Your task to perform on an android device: change the clock style Image 0: 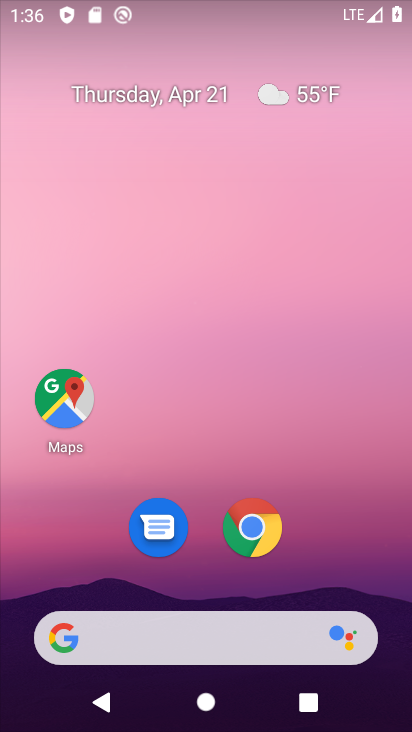
Step 0: drag from (336, 575) to (355, 98)
Your task to perform on an android device: change the clock style Image 1: 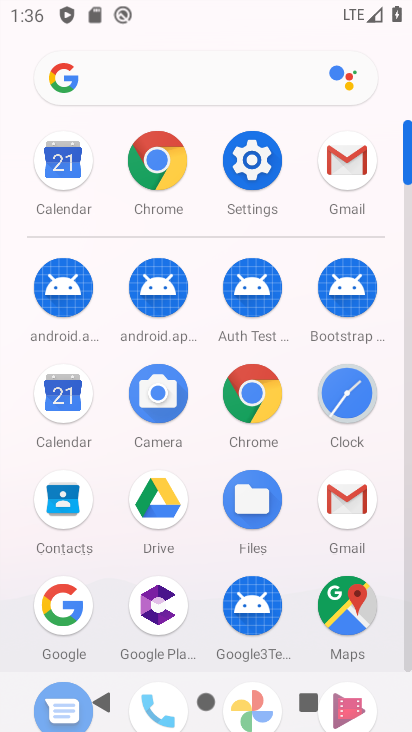
Step 1: click (343, 392)
Your task to perform on an android device: change the clock style Image 2: 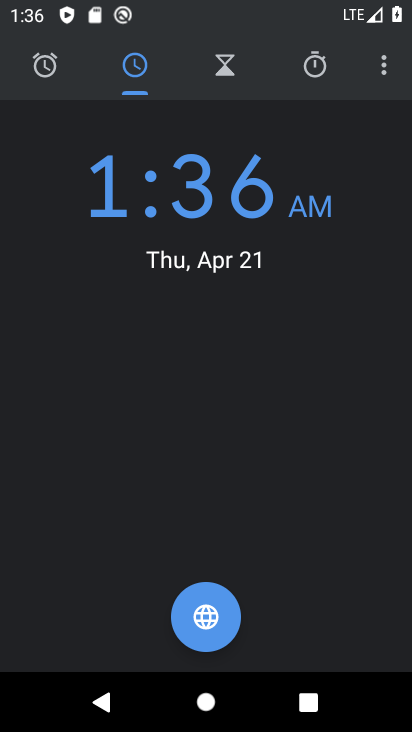
Step 2: click (387, 73)
Your task to perform on an android device: change the clock style Image 3: 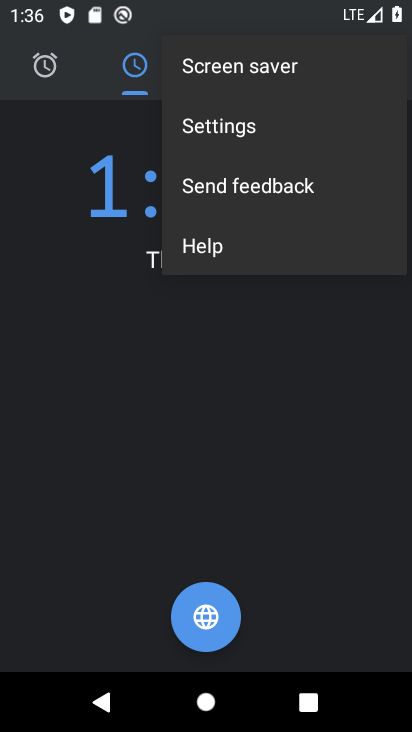
Step 3: click (280, 131)
Your task to perform on an android device: change the clock style Image 4: 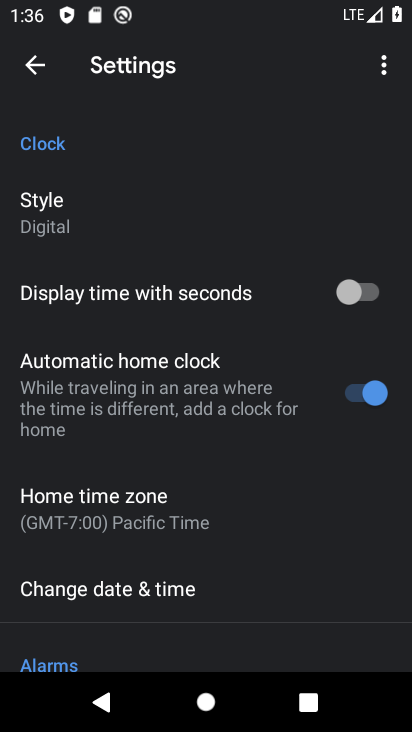
Step 4: drag from (297, 542) to (308, 378)
Your task to perform on an android device: change the clock style Image 5: 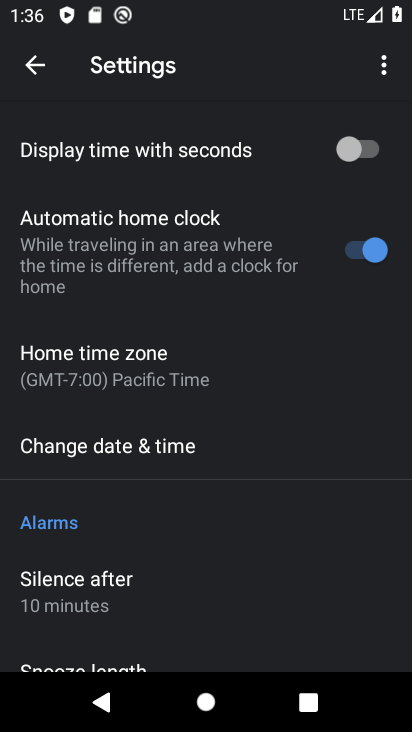
Step 5: drag from (306, 525) to (321, 333)
Your task to perform on an android device: change the clock style Image 6: 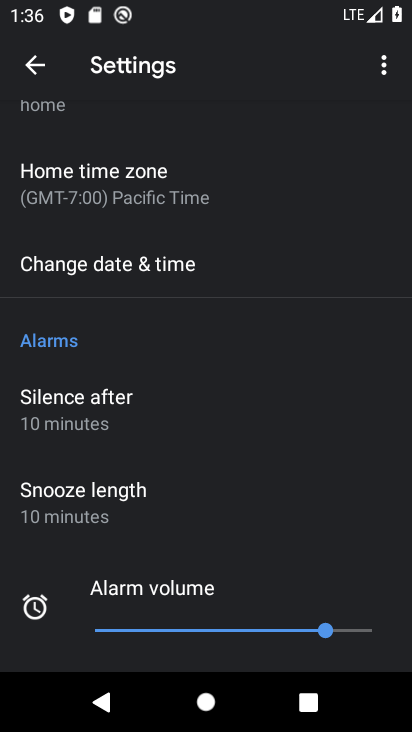
Step 6: drag from (307, 541) to (320, 324)
Your task to perform on an android device: change the clock style Image 7: 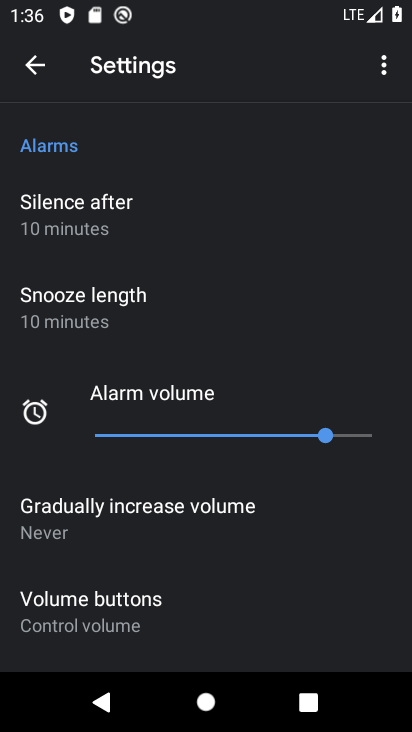
Step 7: drag from (316, 589) to (337, 378)
Your task to perform on an android device: change the clock style Image 8: 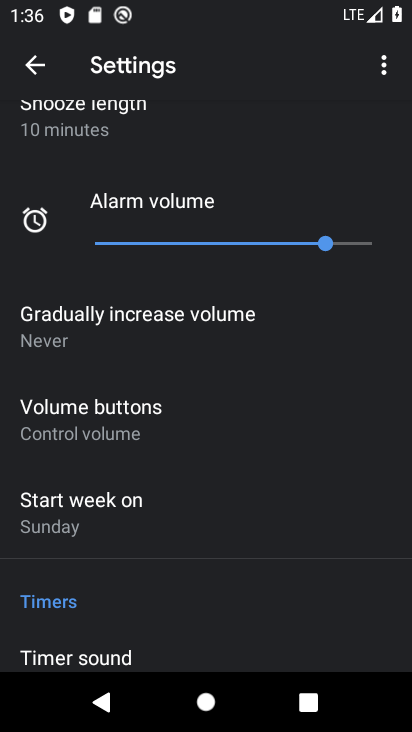
Step 8: drag from (325, 593) to (344, 405)
Your task to perform on an android device: change the clock style Image 9: 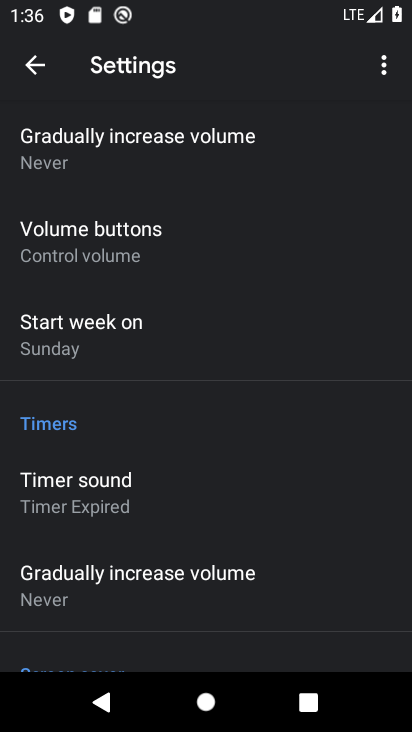
Step 9: drag from (326, 606) to (349, 283)
Your task to perform on an android device: change the clock style Image 10: 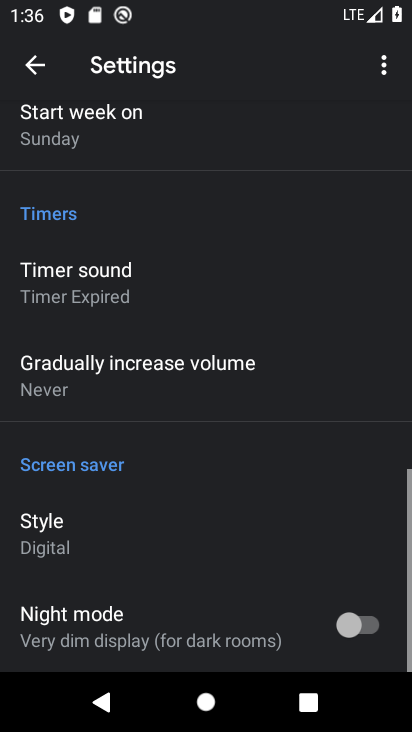
Step 10: drag from (345, 250) to (336, 497)
Your task to perform on an android device: change the clock style Image 11: 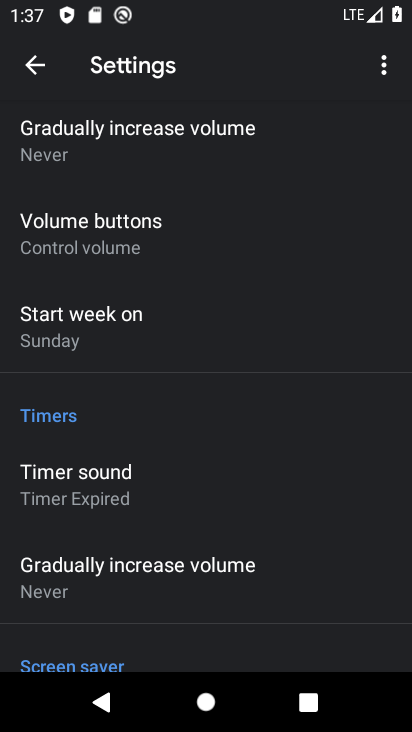
Step 11: drag from (332, 231) to (335, 434)
Your task to perform on an android device: change the clock style Image 12: 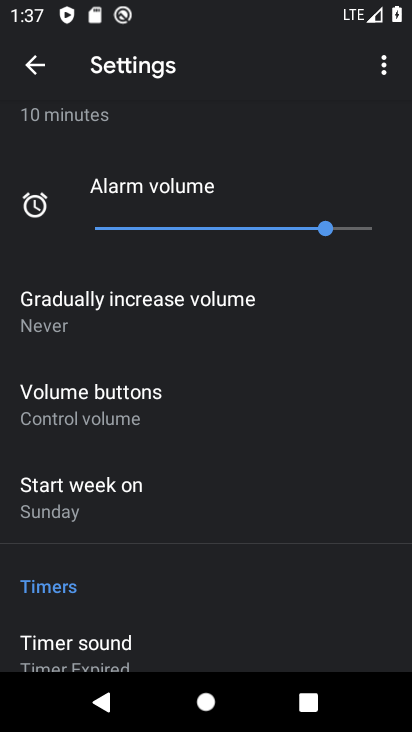
Step 12: drag from (378, 181) to (372, 407)
Your task to perform on an android device: change the clock style Image 13: 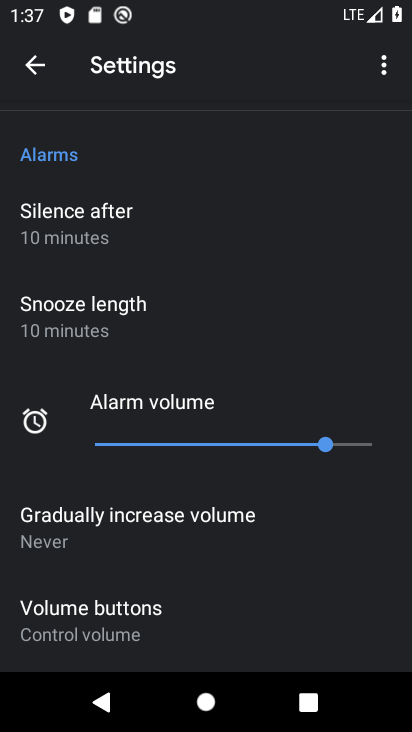
Step 13: drag from (365, 252) to (359, 395)
Your task to perform on an android device: change the clock style Image 14: 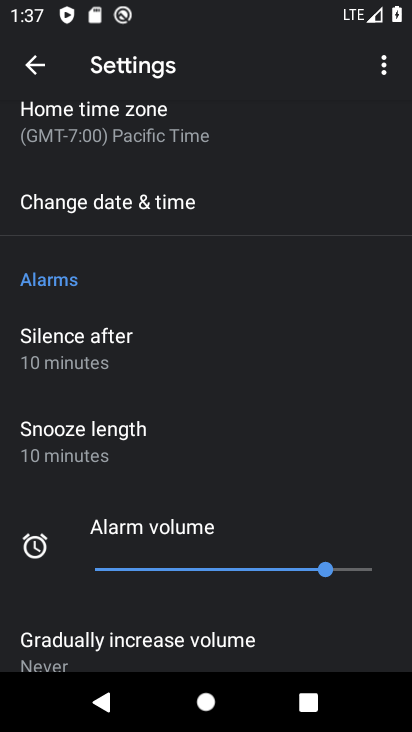
Step 14: drag from (352, 189) to (360, 403)
Your task to perform on an android device: change the clock style Image 15: 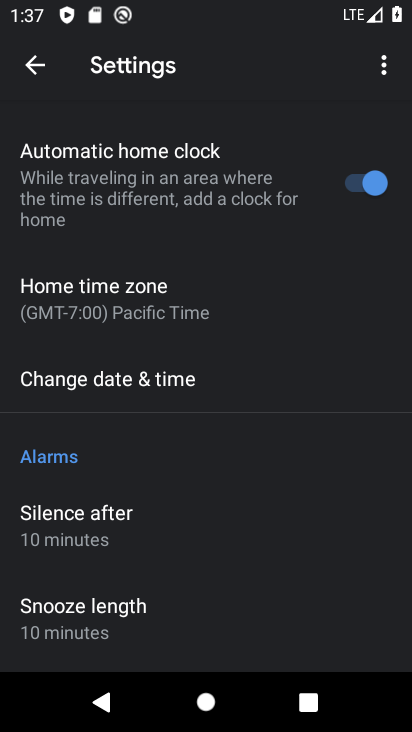
Step 15: drag from (306, 153) to (278, 416)
Your task to perform on an android device: change the clock style Image 16: 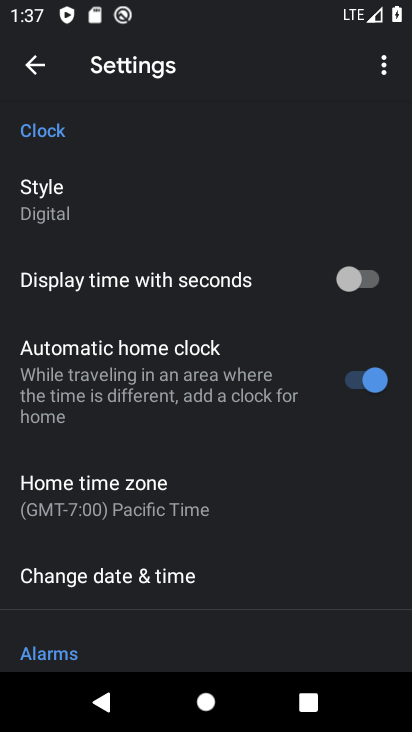
Step 16: click (41, 204)
Your task to perform on an android device: change the clock style Image 17: 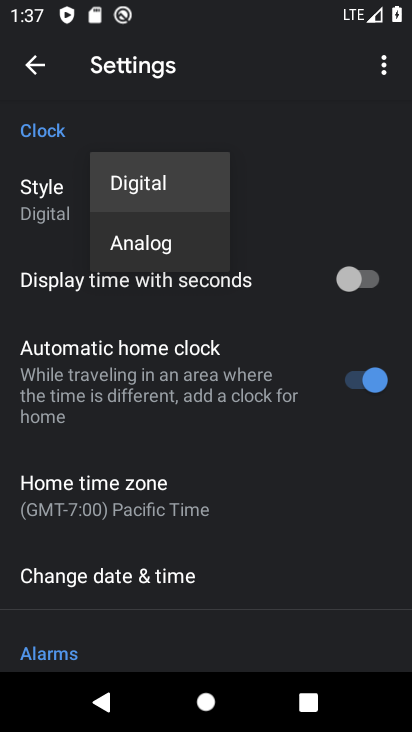
Step 17: click (163, 244)
Your task to perform on an android device: change the clock style Image 18: 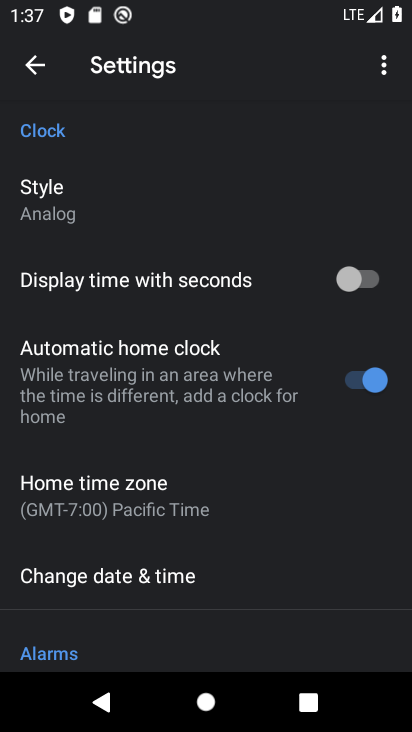
Step 18: task complete